Your task to perform on an android device: What's on my calendar tomorrow? Image 0: 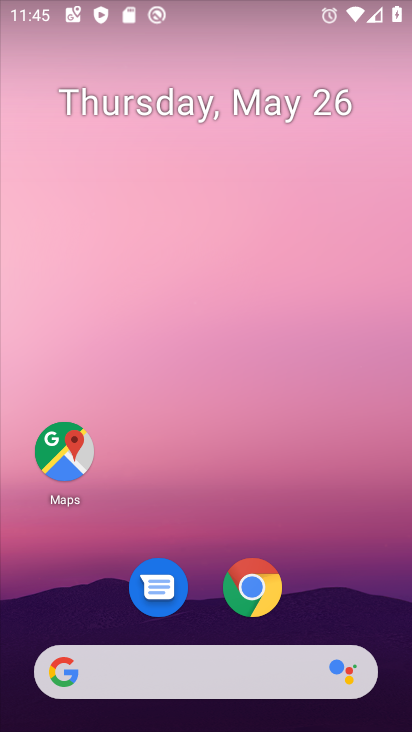
Step 0: drag from (307, 689) to (258, 122)
Your task to perform on an android device: What's on my calendar tomorrow? Image 1: 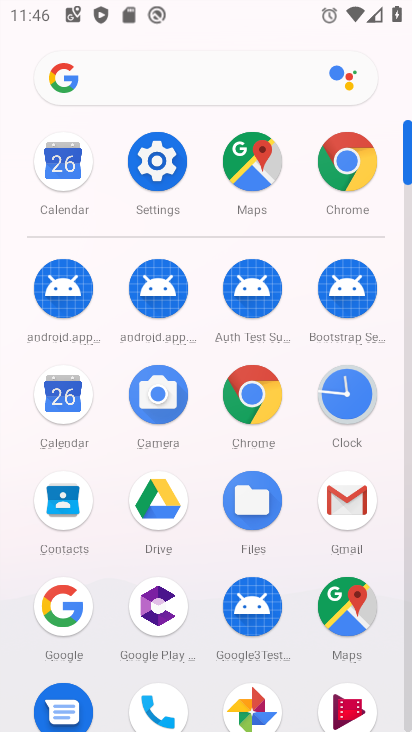
Step 1: click (80, 397)
Your task to perform on an android device: What's on my calendar tomorrow? Image 2: 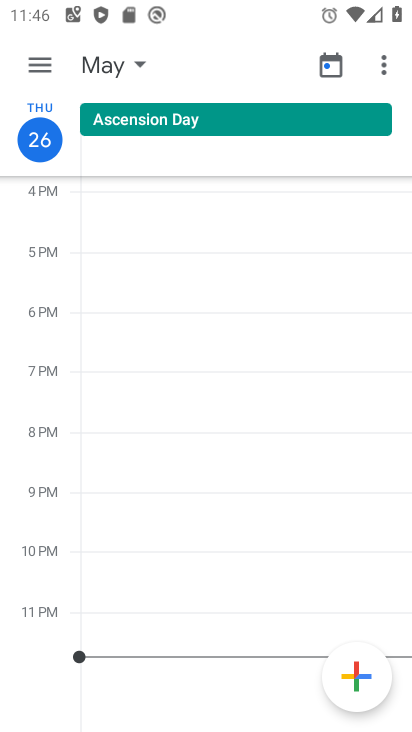
Step 2: click (59, 82)
Your task to perform on an android device: What's on my calendar tomorrow? Image 3: 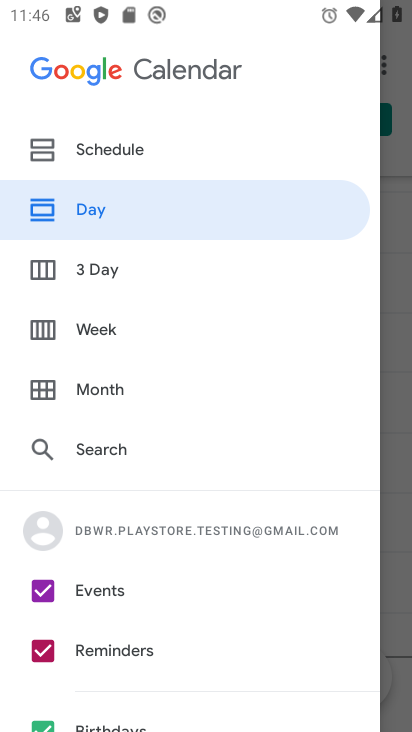
Step 3: click (100, 381)
Your task to perform on an android device: What's on my calendar tomorrow? Image 4: 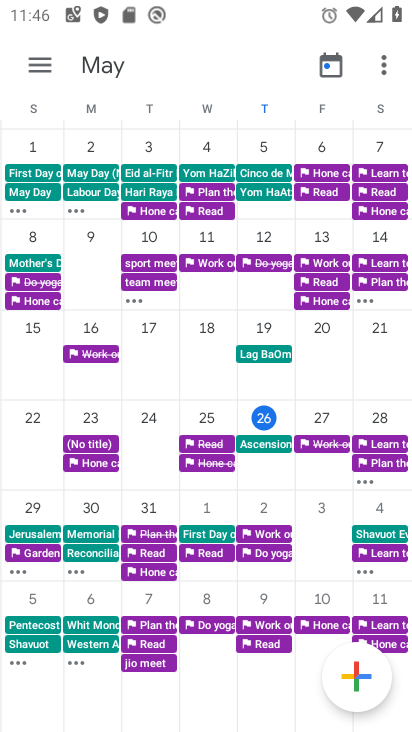
Step 4: click (323, 430)
Your task to perform on an android device: What's on my calendar tomorrow? Image 5: 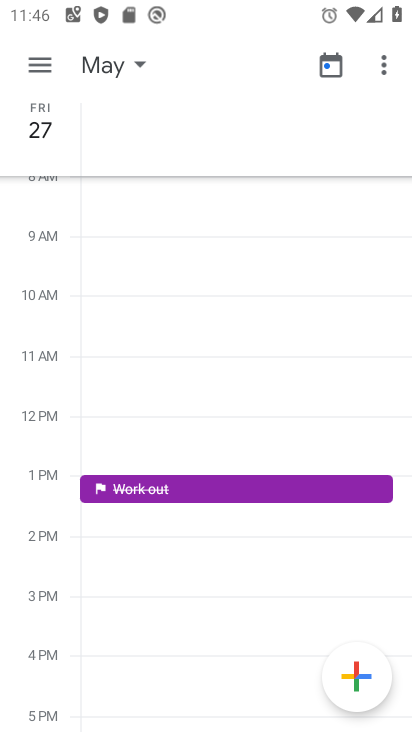
Step 5: task complete